Your task to perform on an android device: open the mobile data screen to see how much data has been used Image 0: 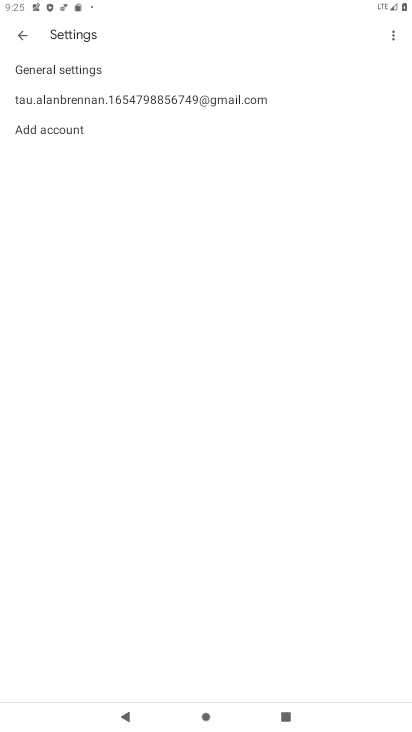
Step 0: press home button
Your task to perform on an android device: open the mobile data screen to see how much data has been used Image 1: 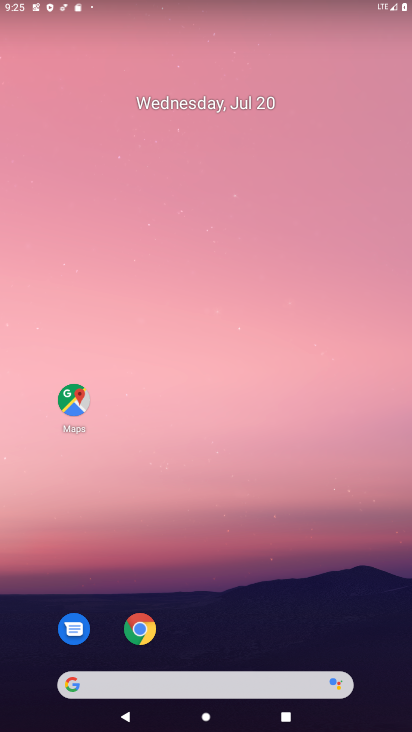
Step 1: drag from (406, 7) to (252, 700)
Your task to perform on an android device: open the mobile data screen to see how much data has been used Image 2: 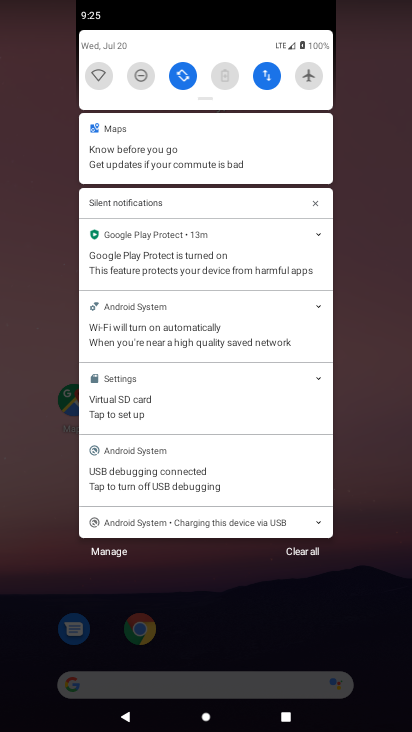
Step 2: click (271, 83)
Your task to perform on an android device: open the mobile data screen to see how much data has been used Image 3: 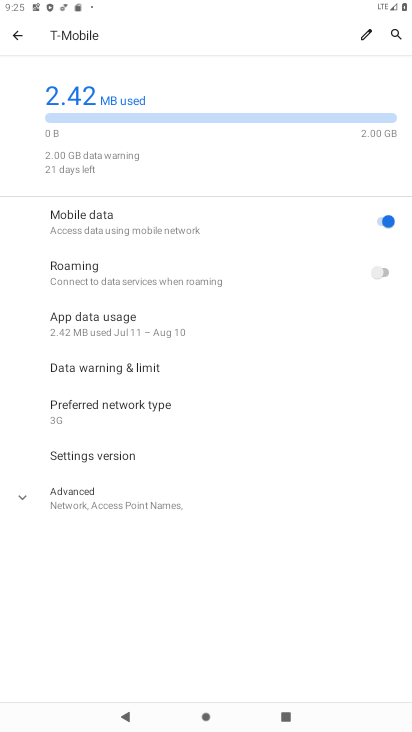
Step 3: task complete